Your task to perform on an android device: install app "Adobe Acrobat Reader" Image 0: 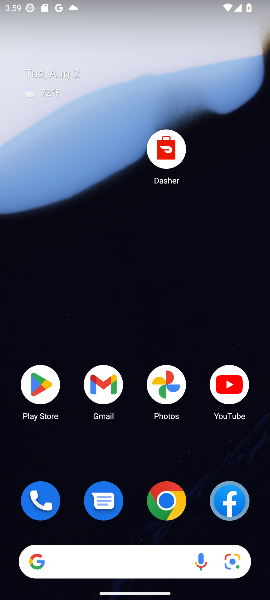
Step 0: click (38, 392)
Your task to perform on an android device: install app "Adobe Acrobat Reader" Image 1: 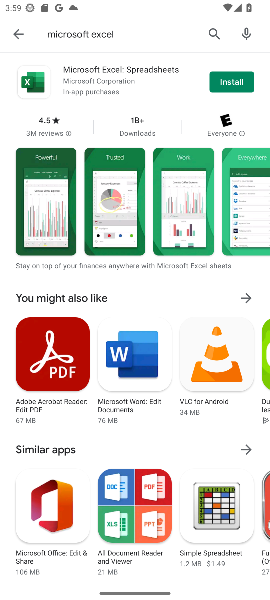
Step 1: click (214, 32)
Your task to perform on an android device: install app "Adobe Acrobat Reader" Image 2: 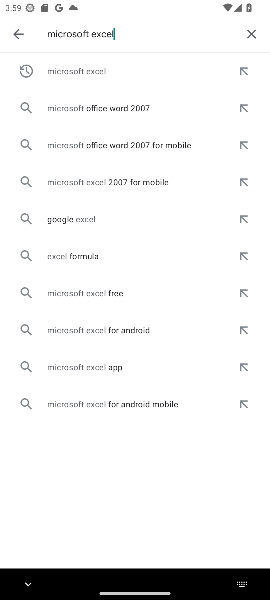
Step 2: click (252, 39)
Your task to perform on an android device: install app "Adobe Acrobat Reader" Image 3: 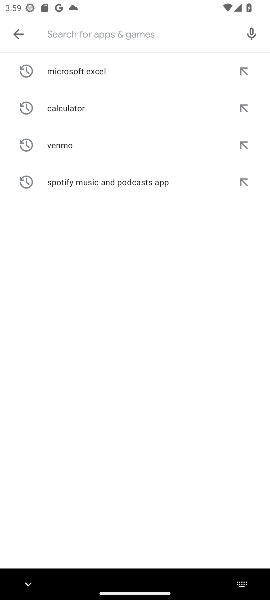
Step 3: type "Adobe Acrobat Reader"
Your task to perform on an android device: install app "Adobe Acrobat Reader" Image 4: 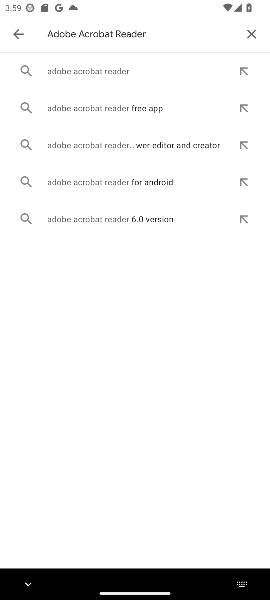
Step 4: click (93, 77)
Your task to perform on an android device: install app "Adobe Acrobat Reader" Image 5: 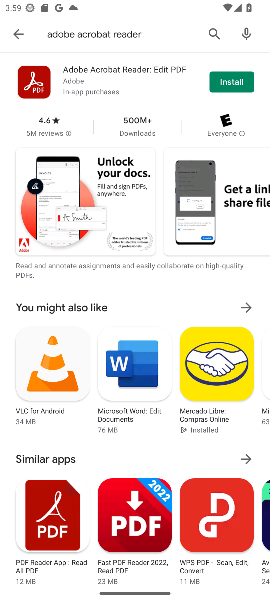
Step 5: click (240, 79)
Your task to perform on an android device: install app "Adobe Acrobat Reader" Image 6: 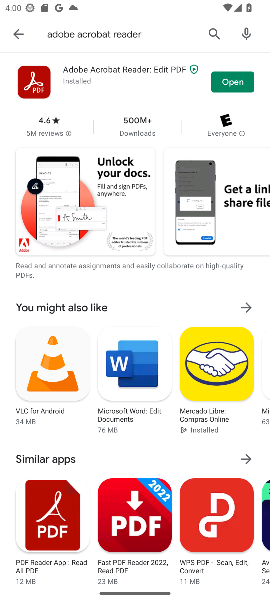
Step 6: task complete